Your task to perform on an android device: Open Google Chrome and open the bookmarks view Image 0: 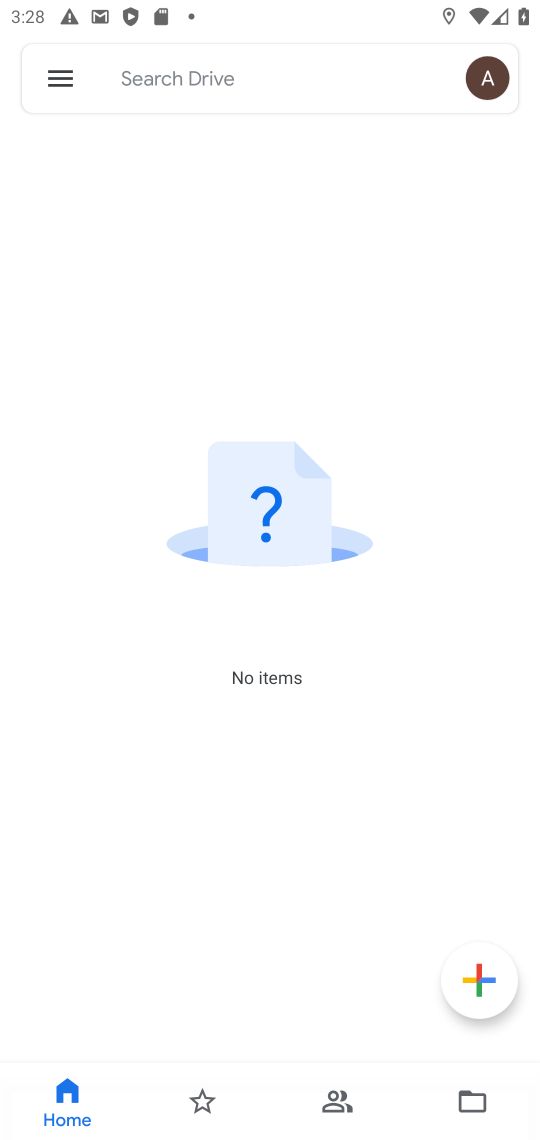
Step 0: press home button
Your task to perform on an android device: Open Google Chrome and open the bookmarks view Image 1: 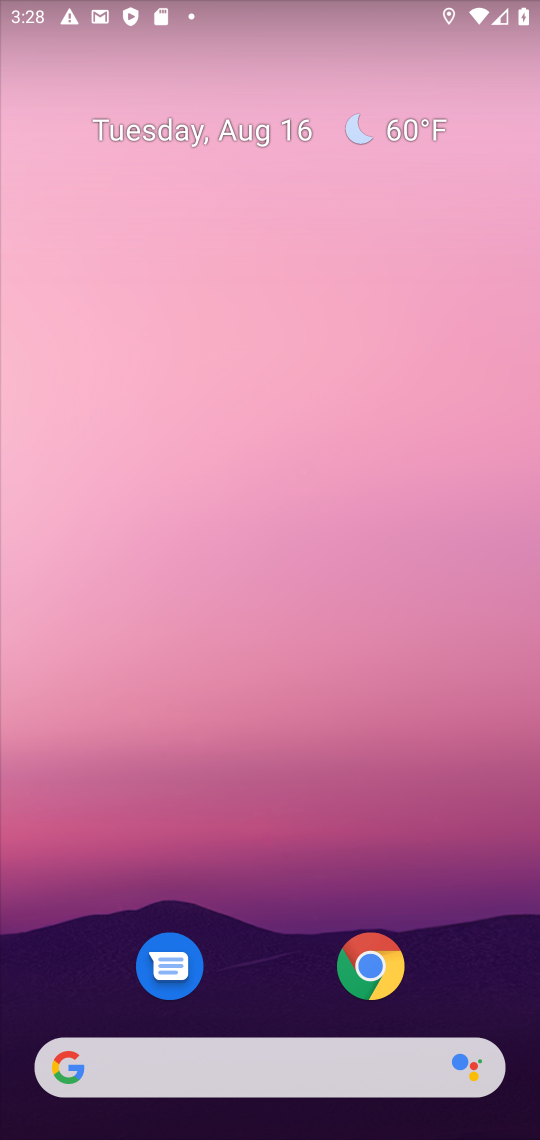
Step 1: drag from (37, 1064) to (435, 298)
Your task to perform on an android device: Open Google Chrome and open the bookmarks view Image 2: 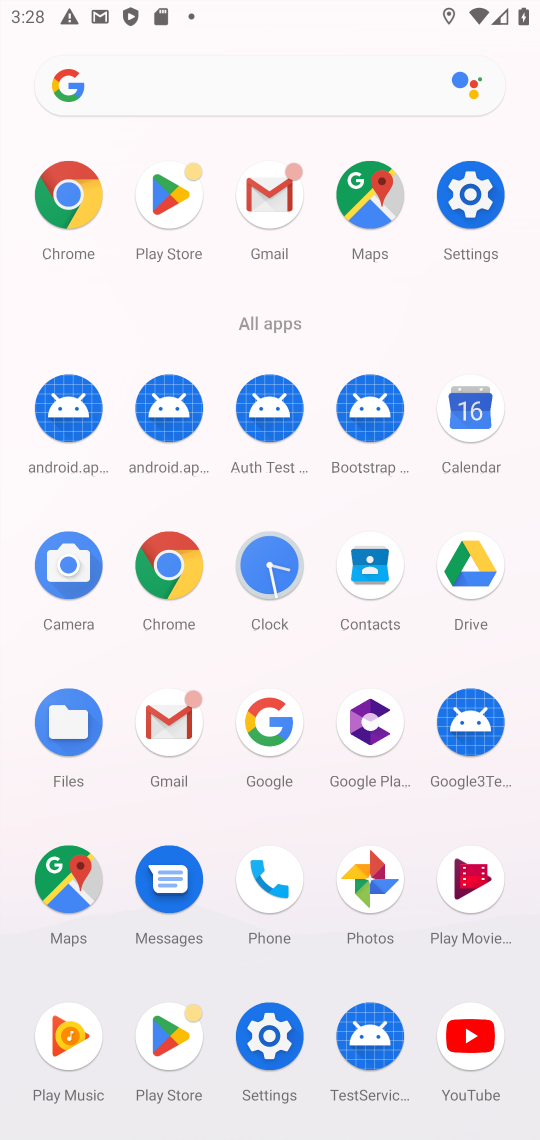
Step 2: click (166, 586)
Your task to perform on an android device: Open Google Chrome and open the bookmarks view Image 3: 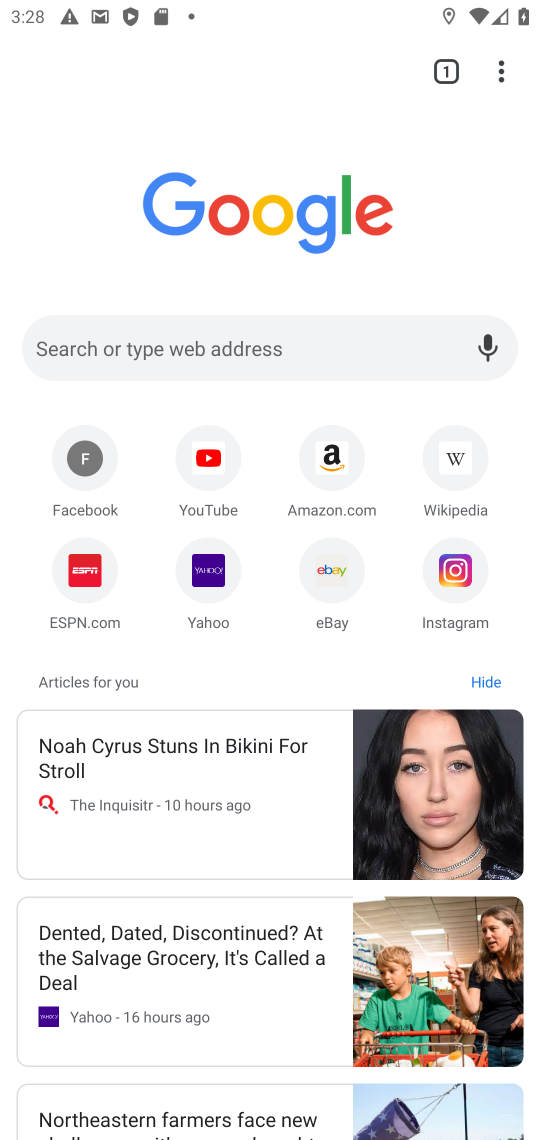
Step 3: click (500, 61)
Your task to perform on an android device: Open Google Chrome and open the bookmarks view Image 4: 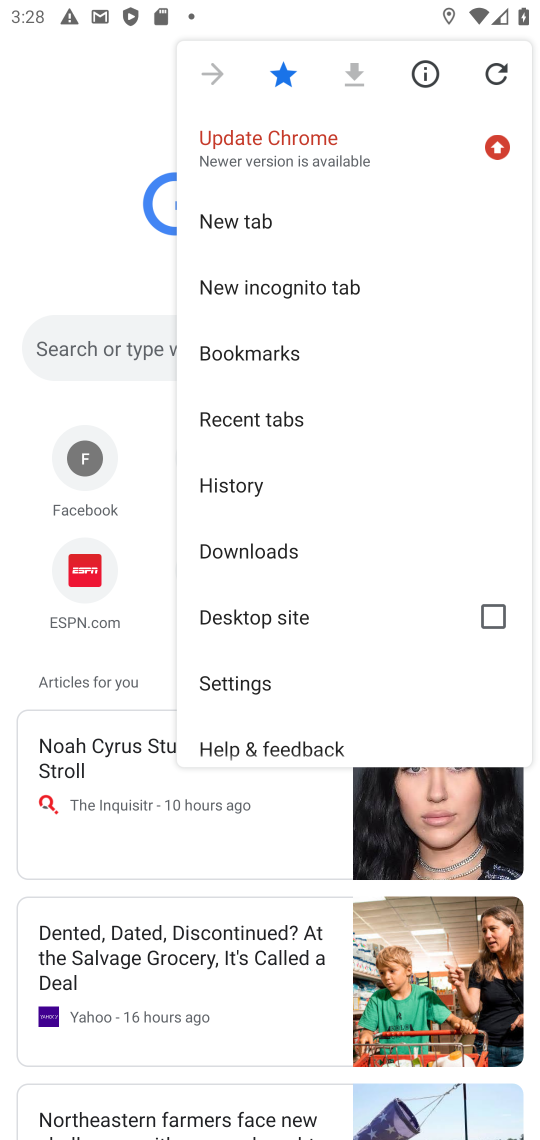
Step 4: click (256, 353)
Your task to perform on an android device: Open Google Chrome and open the bookmarks view Image 5: 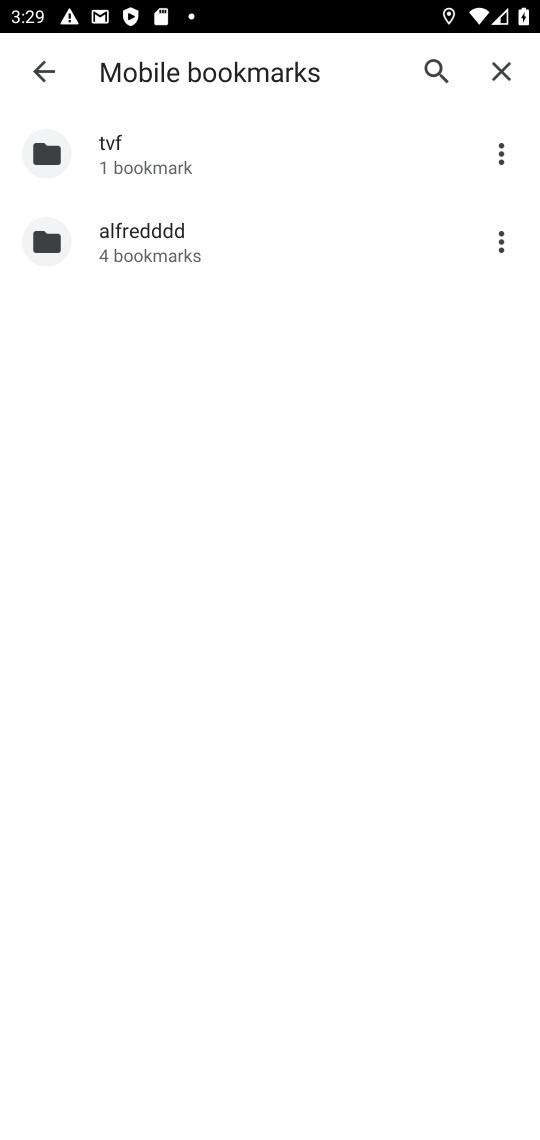
Step 5: task complete